Your task to perform on an android device: check out phone information Image 0: 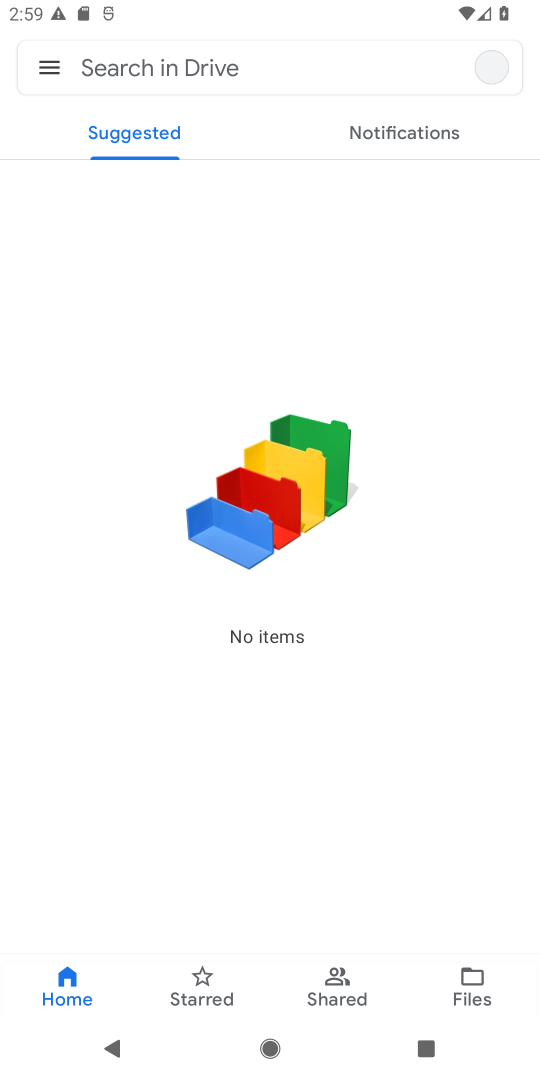
Step 0: press home button
Your task to perform on an android device: check out phone information Image 1: 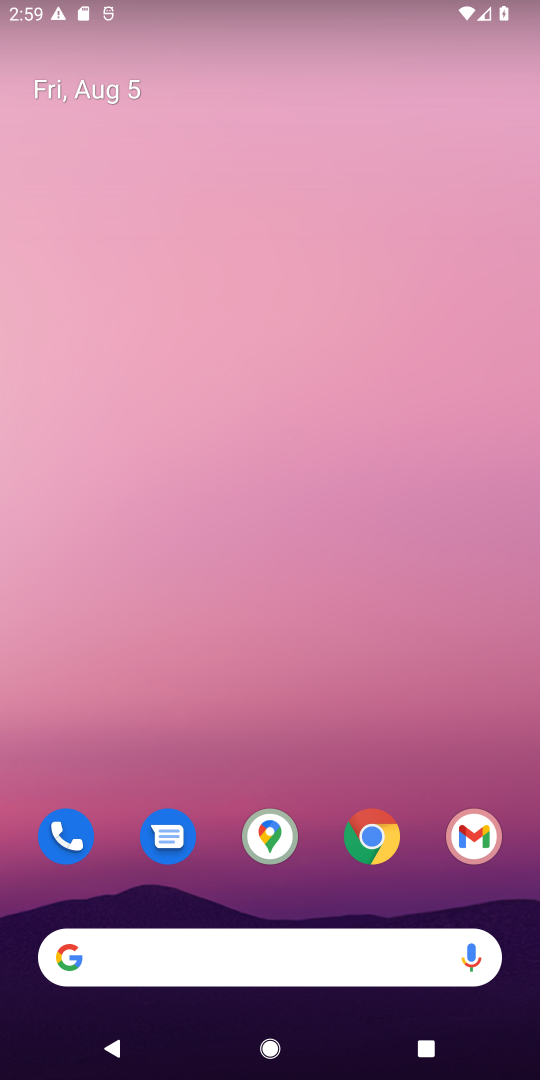
Step 1: drag from (221, 886) to (163, 39)
Your task to perform on an android device: check out phone information Image 2: 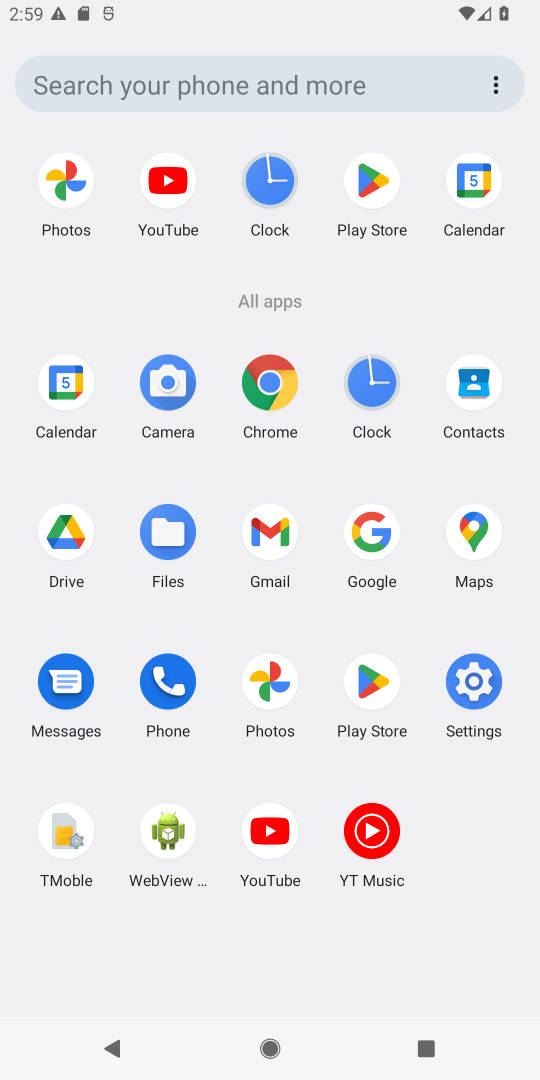
Step 2: click (478, 692)
Your task to perform on an android device: check out phone information Image 3: 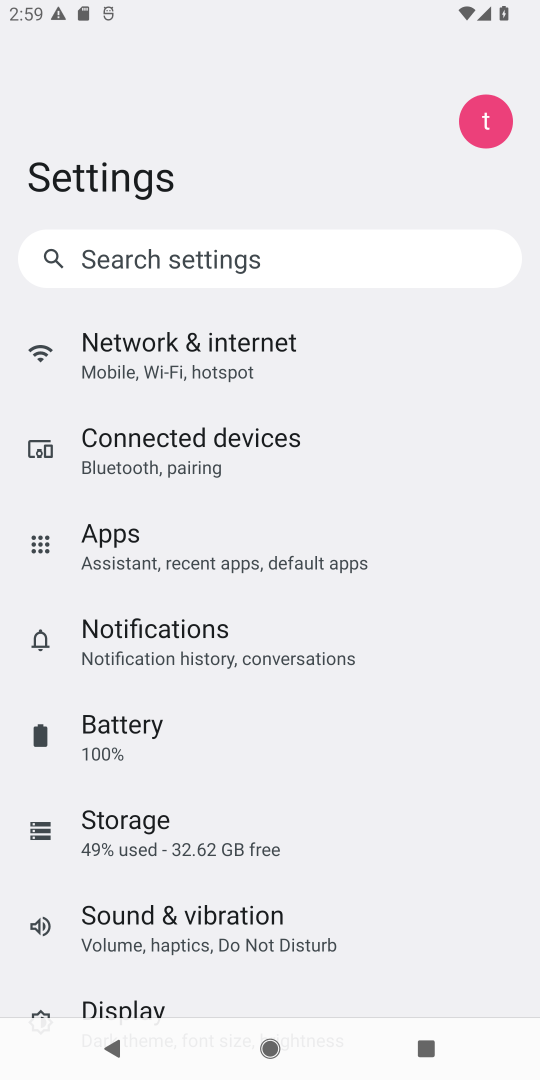
Step 3: drag from (232, 985) to (99, 292)
Your task to perform on an android device: check out phone information Image 4: 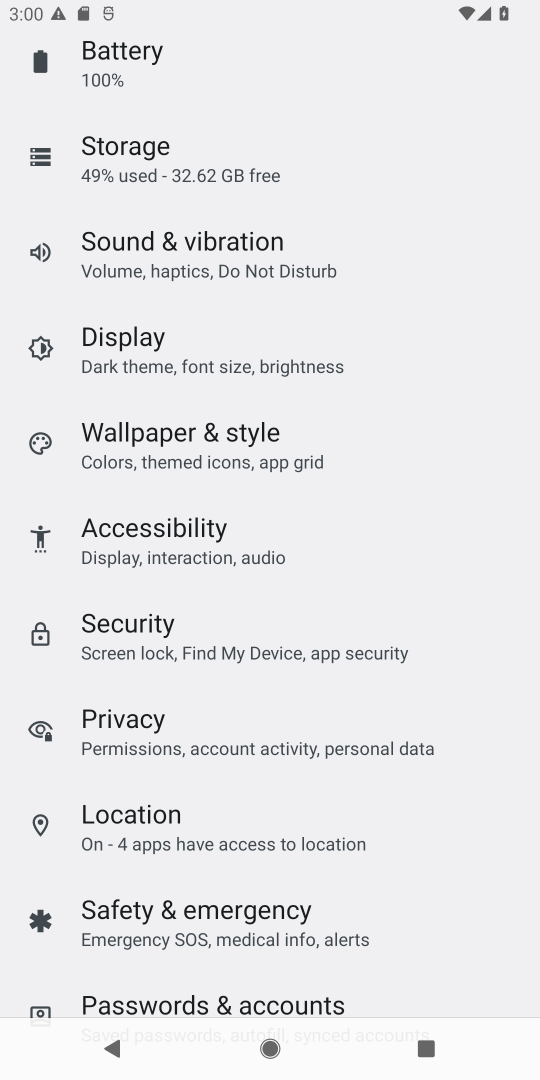
Step 4: drag from (165, 842) to (210, 183)
Your task to perform on an android device: check out phone information Image 5: 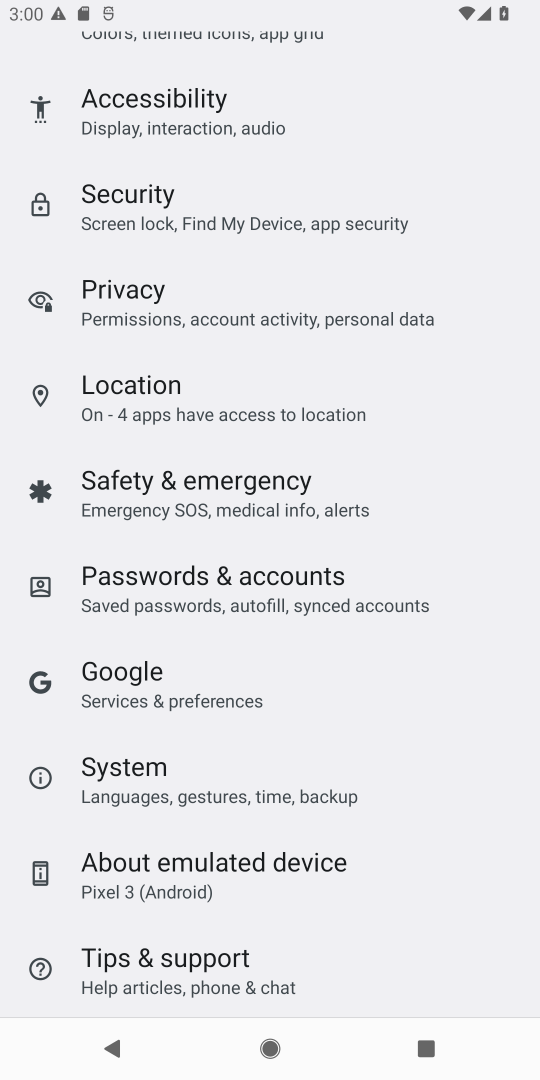
Step 5: drag from (198, 654) to (205, 278)
Your task to perform on an android device: check out phone information Image 6: 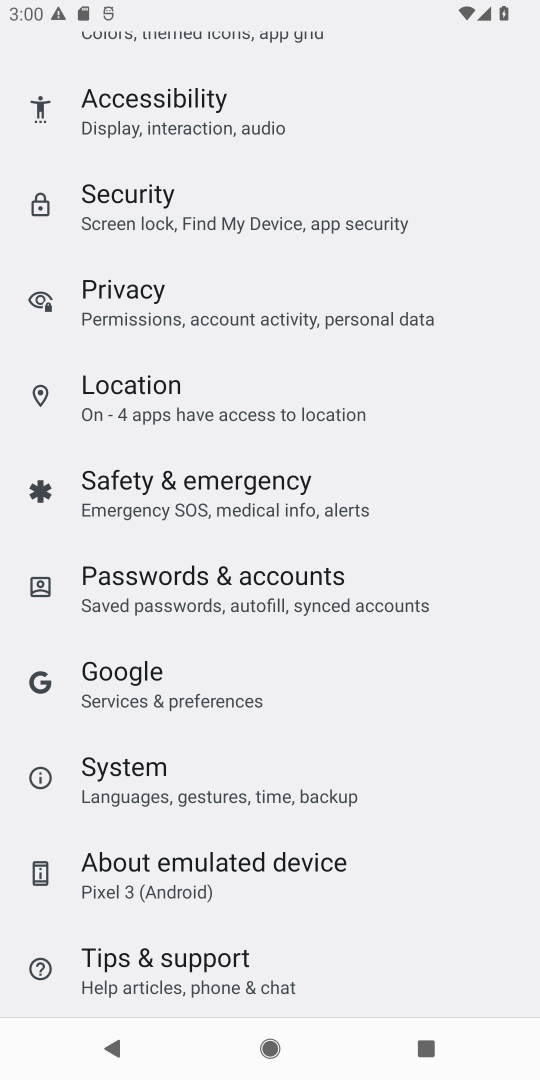
Step 6: click (161, 870)
Your task to perform on an android device: check out phone information Image 7: 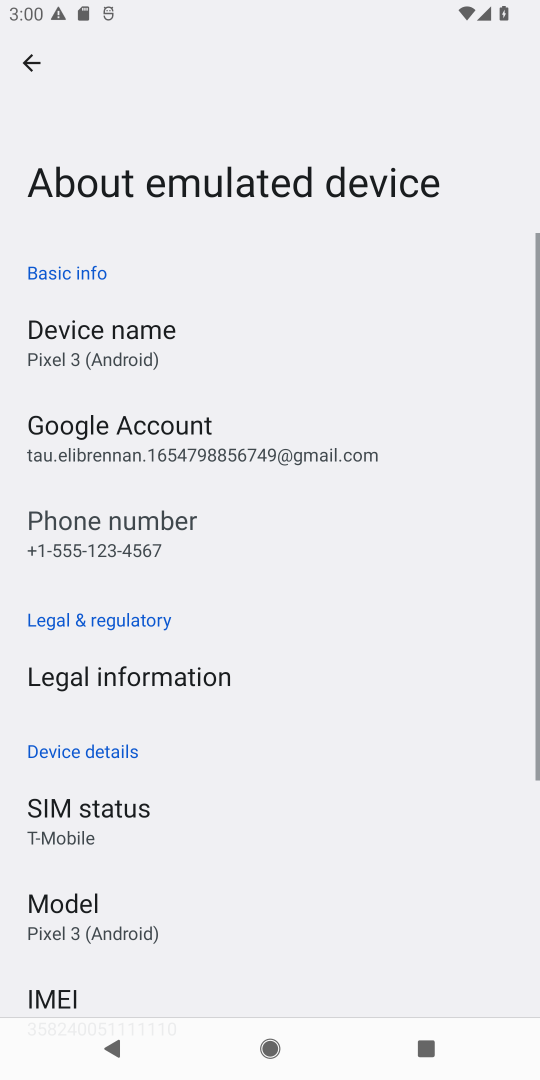
Step 7: task complete